Your task to perform on an android device: Go to sound settings Image 0: 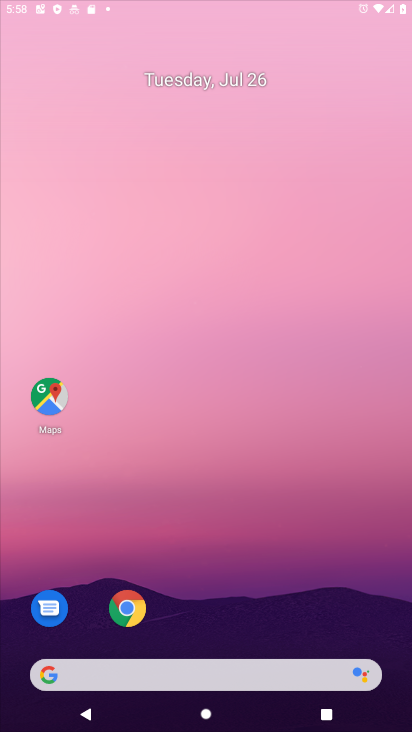
Step 0: press home button
Your task to perform on an android device: Go to sound settings Image 1: 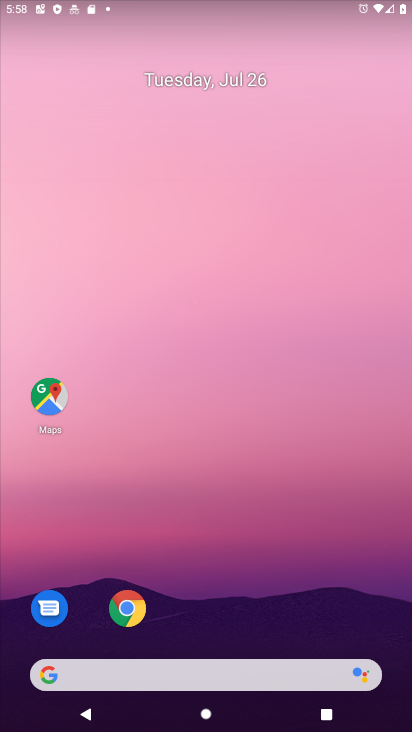
Step 1: drag from (220, 637) to (317, 84)
Your task to perform on an android device: Go to sound settings Image 2: 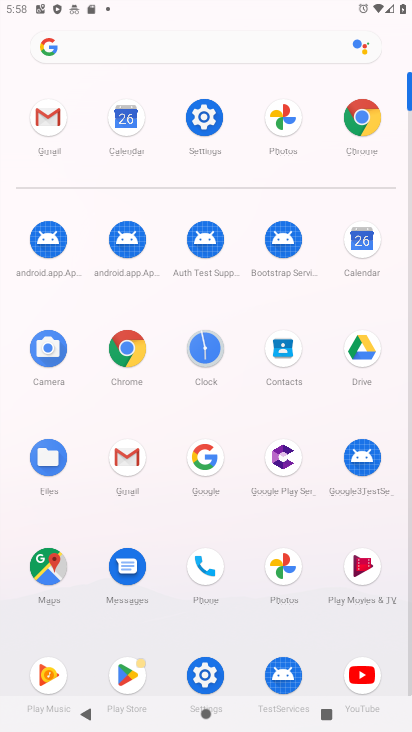
Step 2: click (197, 112)
Your task to perform on an android device: Go to sound settings Image 3: 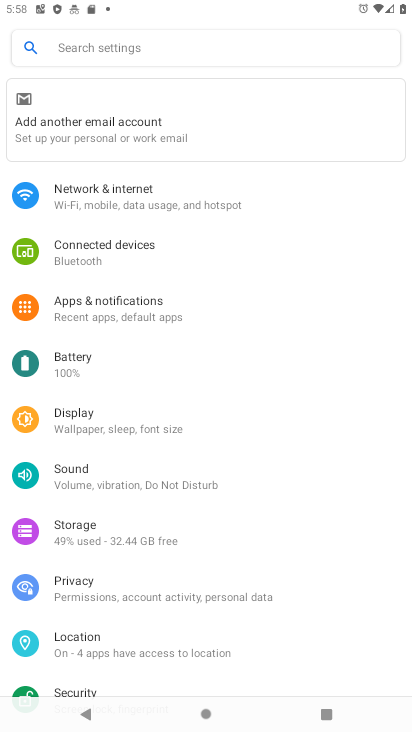
Step 3: click (77, 477)
Your task to perform on an android device: Go to sound settings Image 4: 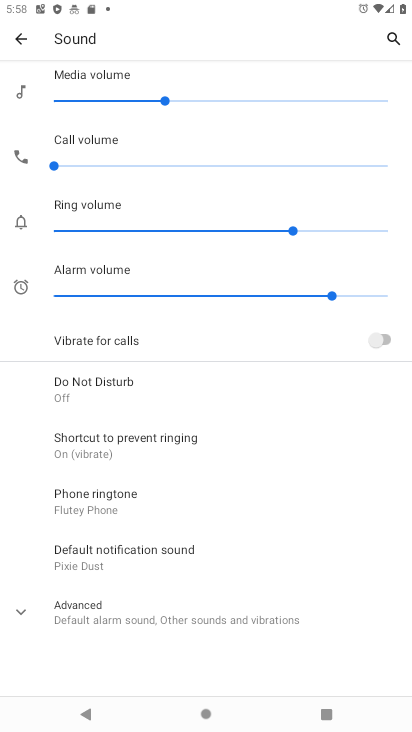
Step 4: task complete